Your task to perform on an android device: Search for Italian restaurants on Maps Image 0: 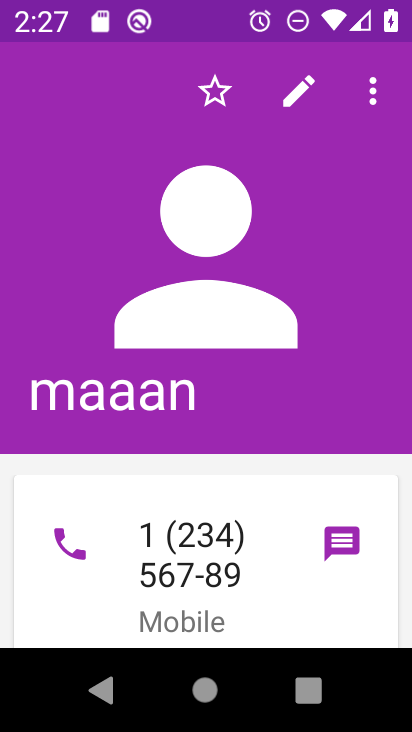
Step 0: press home button
Your task to perform on an android device: Search for Italian restaurants on Maps Image 1: 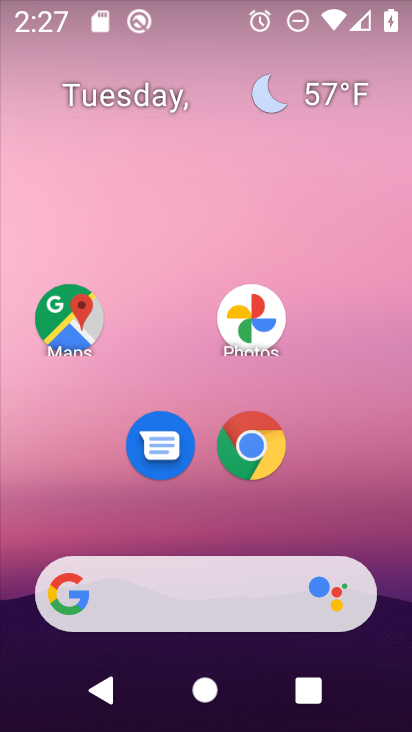
Step 1: drag from (391, 538) to (395, 194)
Your task to perform on an android device: Search for Italian restaurants on Maps Image 2: 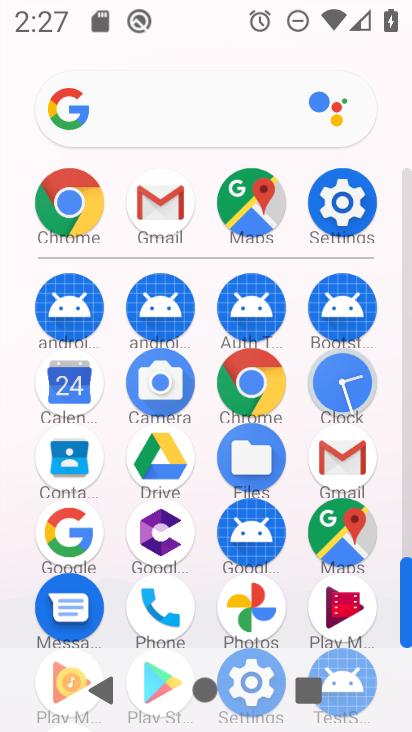
Step 2: click (346, 548)
Your task to perform on an android device: Search for Italian restaurants on Maps Image 3: 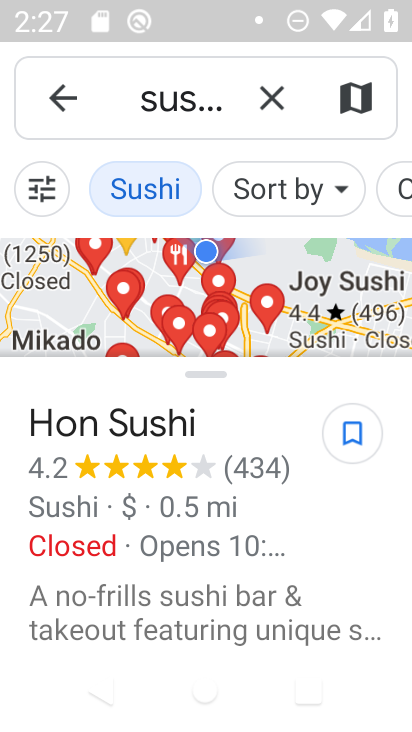
Step 3: click (266, 103)
Your task to perform on an android device: Search for Italian restaurants on Maps Image 4: 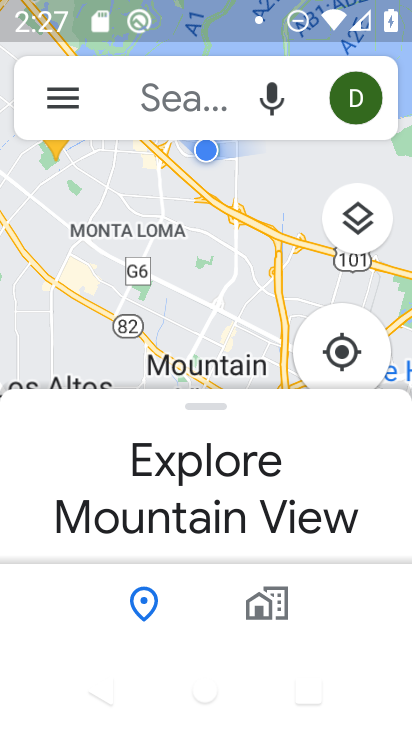
Step 4: click (180, 101)
Your task to perform on an android device: Search for Italian restaurants on Maps Image 5: 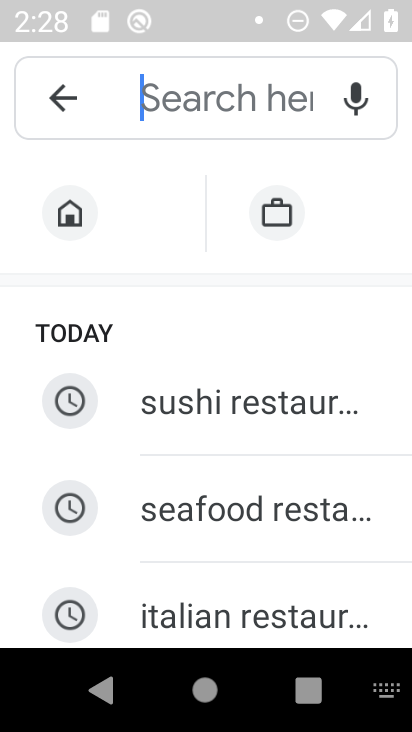
Step 5: type "italian testraunts"
Your task to perform on an android device: Search for Italian restaurants on Maps Image 6: 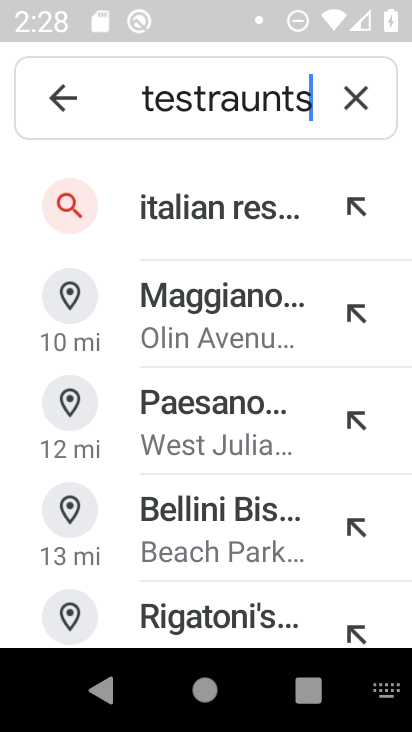
Step 6: click (201, 196)
Your task to perform on an android device: Search for Italian restaurants on Maps Image 7: 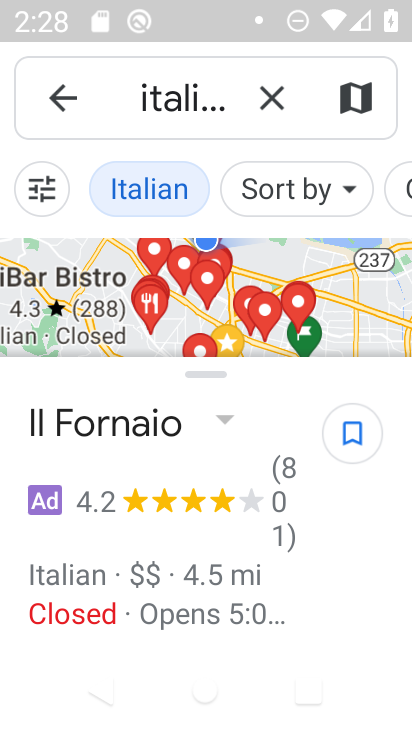
Step 7: task complete